Your task to perform on an android device: change the clock display to digital Image 0: 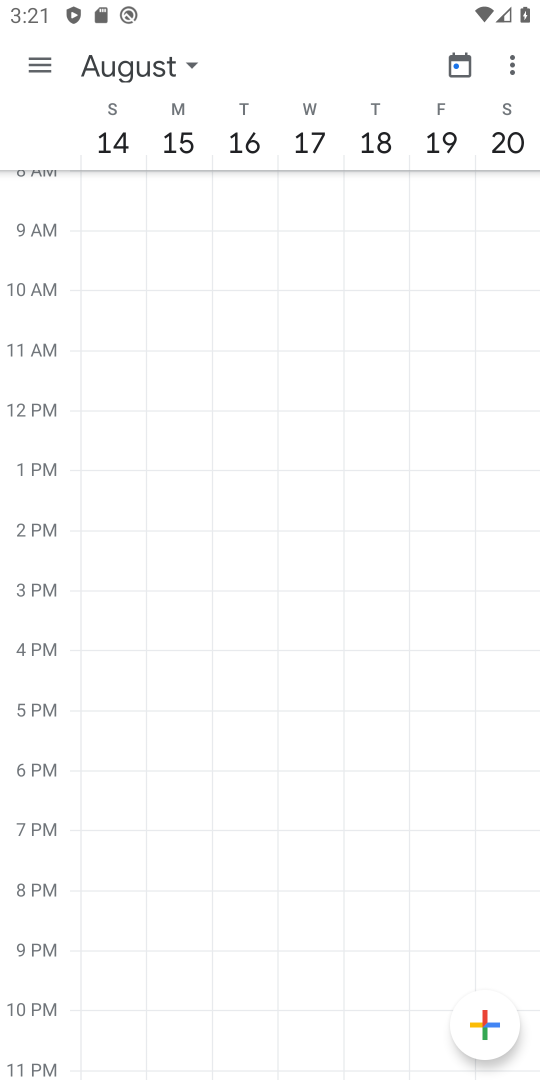
Step 0: press home button
Your task to perform on an android device: change the clock display to digital Image 1: 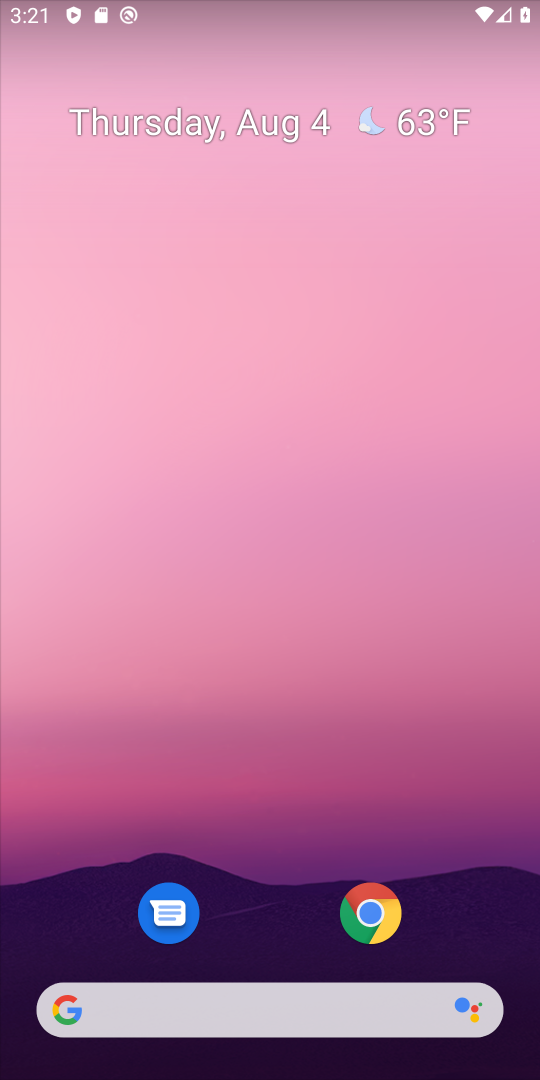
Step 1: drag from (339, 1029) to (325, 10)
Your task to perform on an android device: change the clock display to digital Image 2: 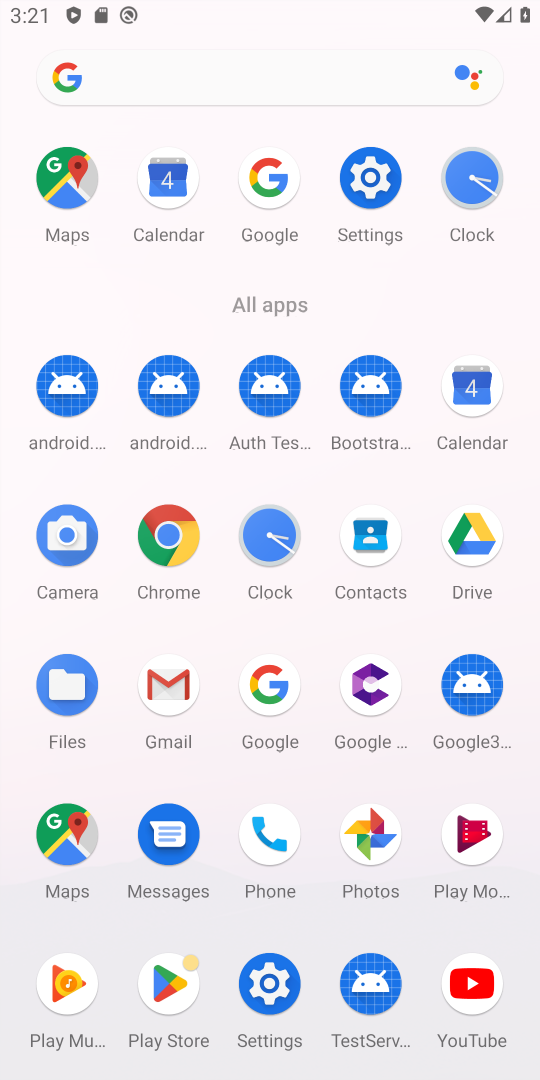
Step 2: click (267, 536)
Your task to perform on an android device: change the clock display to digital Image 3: 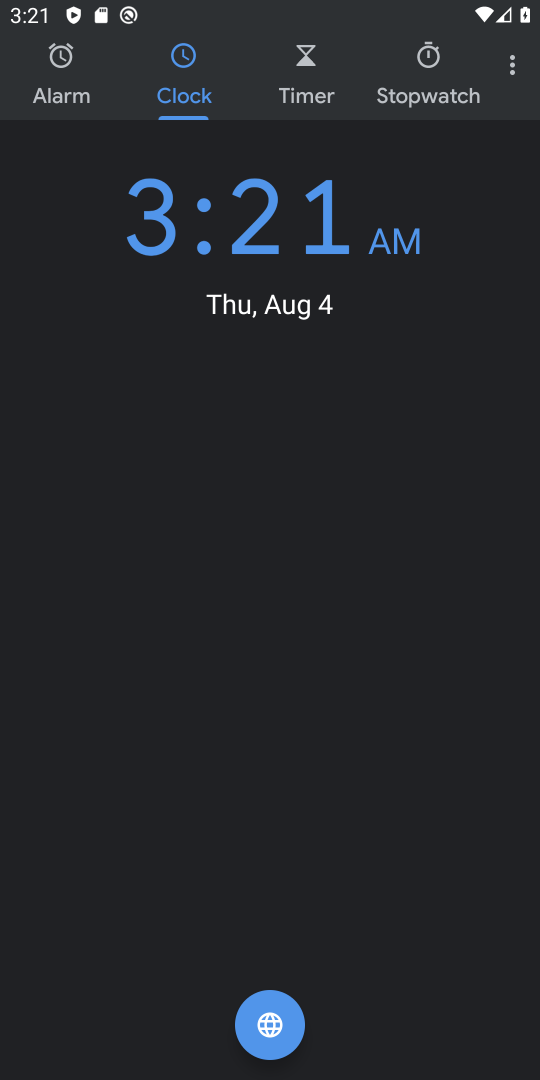
Step 3: click (508, 57)
Your task to perform on an android device: change the clock display to digital Image 4: 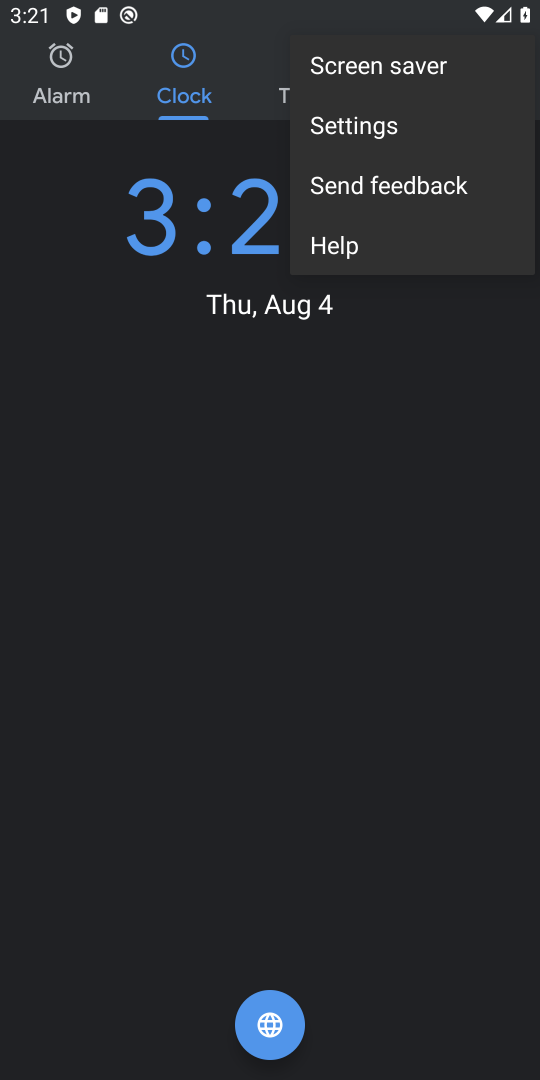
Step 4: click (395, 135)
Your task to perform on an android device: change the clock display to digital Image 5: 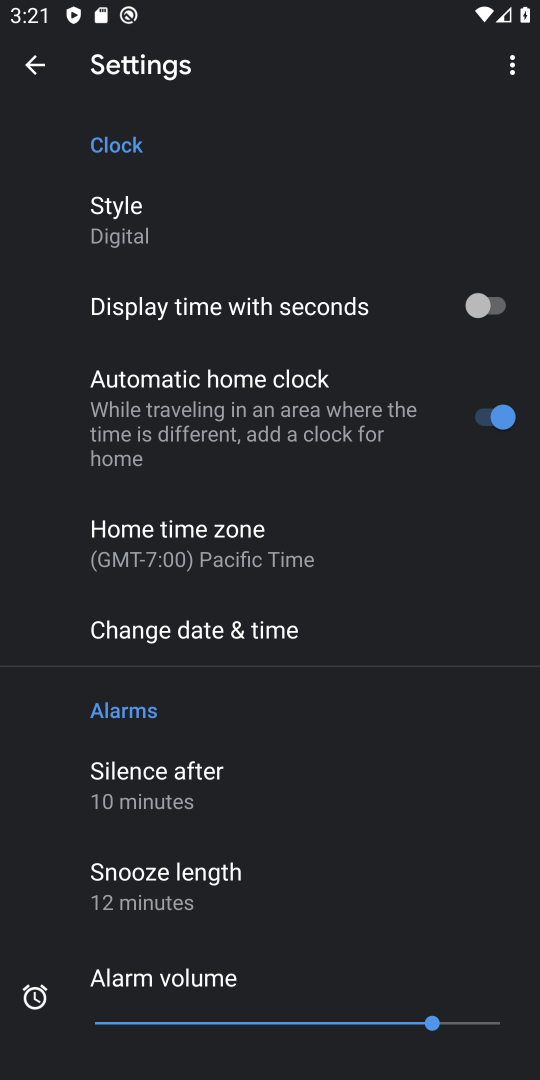
Step 5: click (174, 224)
Your task to perform on an android device: change the clock display to digital Image 6: 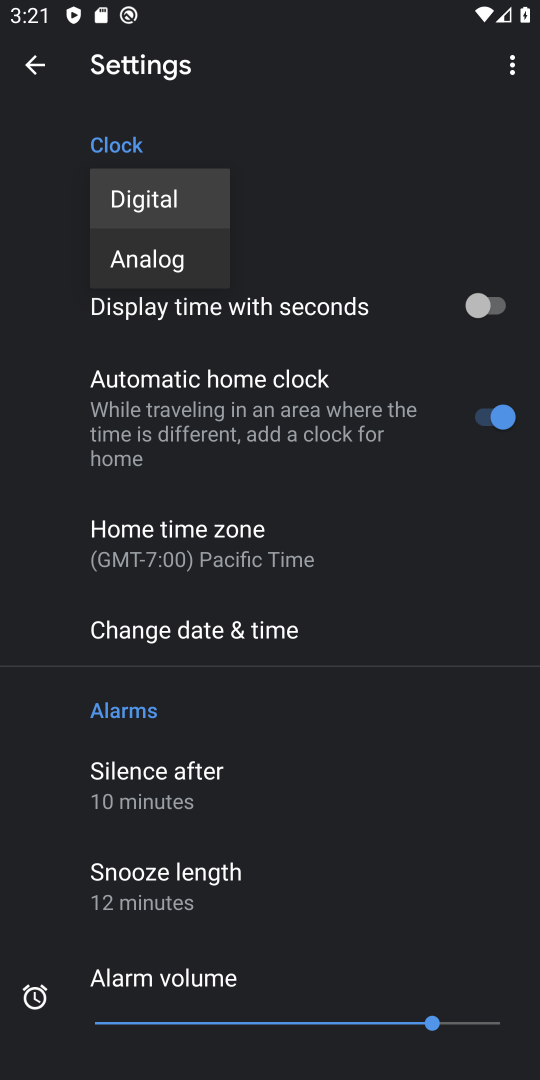
Step 6: click (127, 253)
Your task to perform on an android device: change the clock display to digital Image 7: 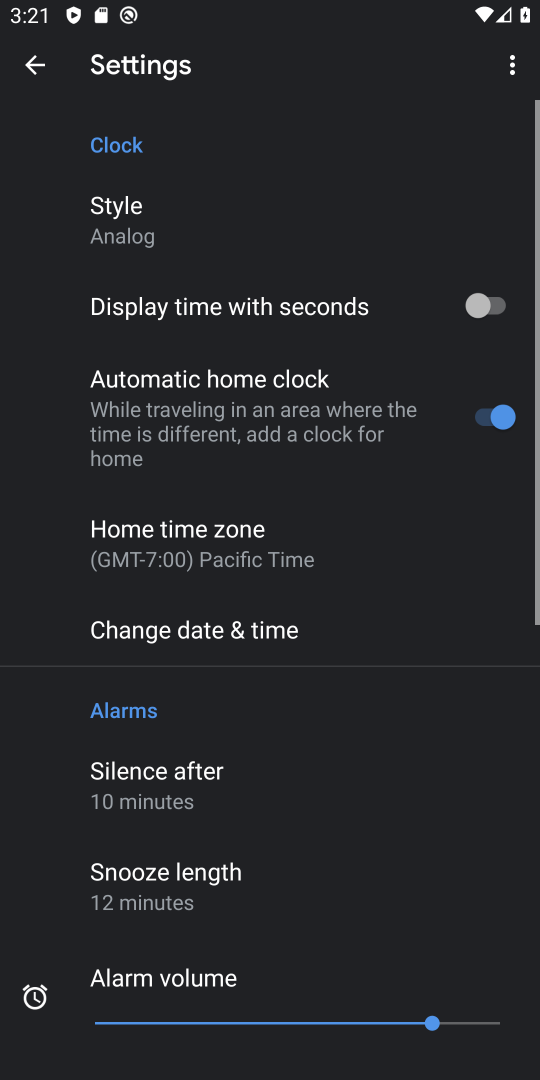
Step 7: task complete